Your task to perform on an android device: allow cookies in the chrome app Image 0: 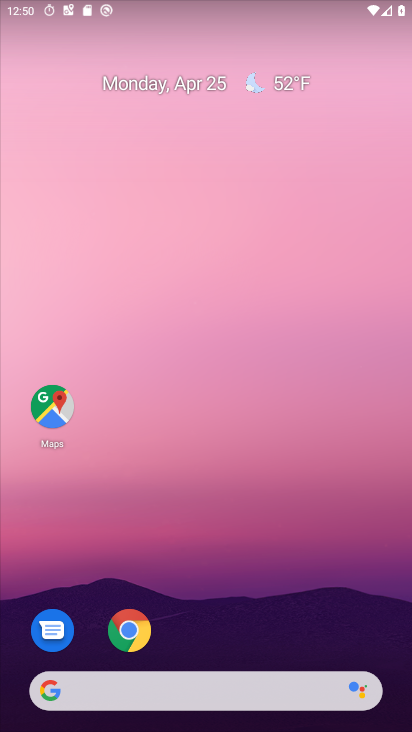
Step 0: drag from (291, 609) to (133, 322)
Your task to perform on an android device: allow cookies in the chrome app Image 1: 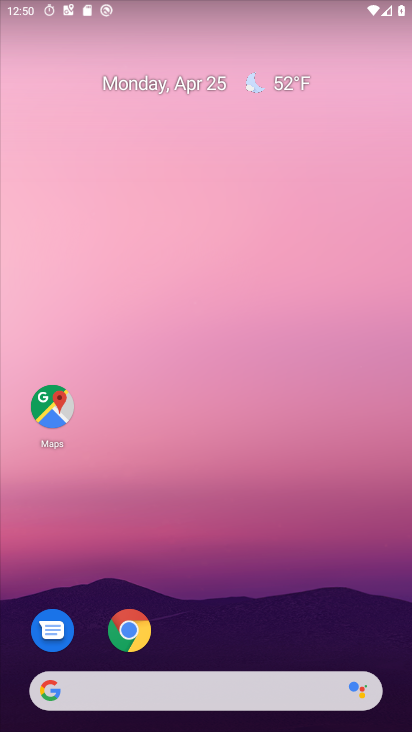
Step 1: click (124, 632)
Your task to perform on an android device: allow cookies in the chrome app Image 2: 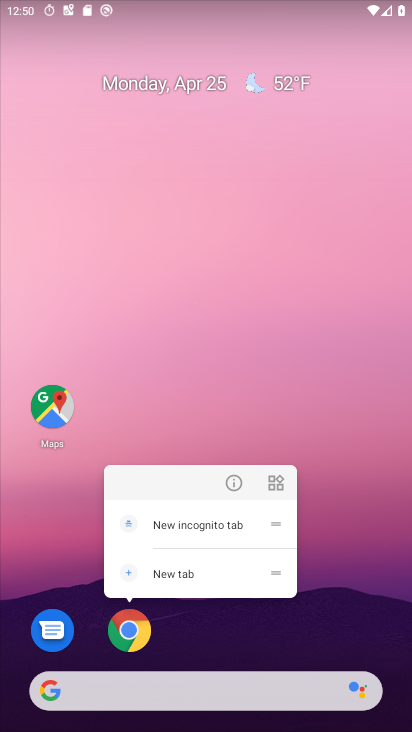
Step 2: click (227, 486)
Your task to perform on an android device: allow cookies in the chrome app Image 3: 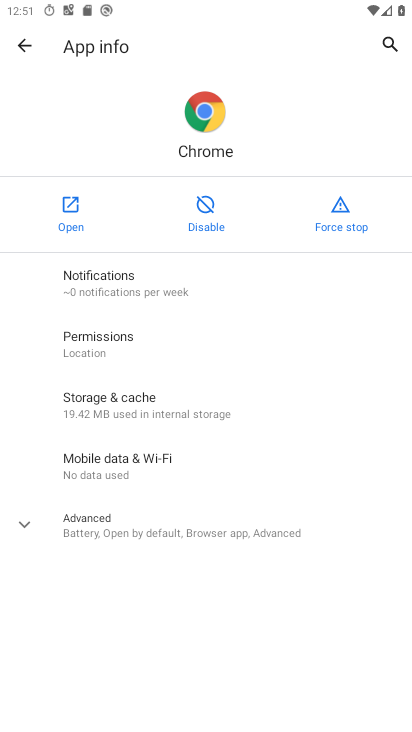
Step 3: click (58, 219)
Your task to perform on an android device: allow cookies in the chrome app Image 4: 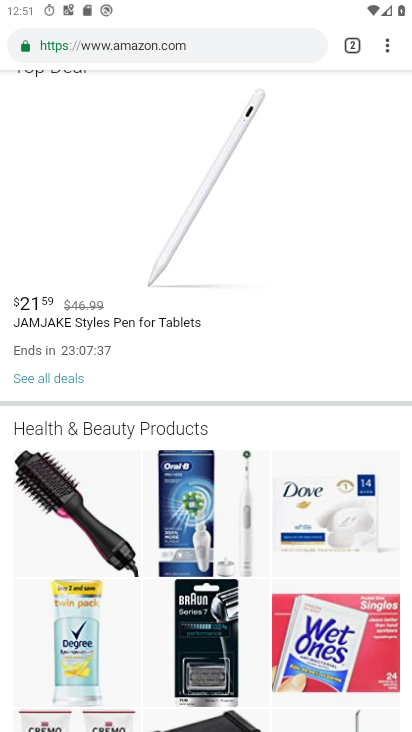
Step 4: click (388, 36)
Your task to perform on an android device: allow cookies in the chrome app Image 5: 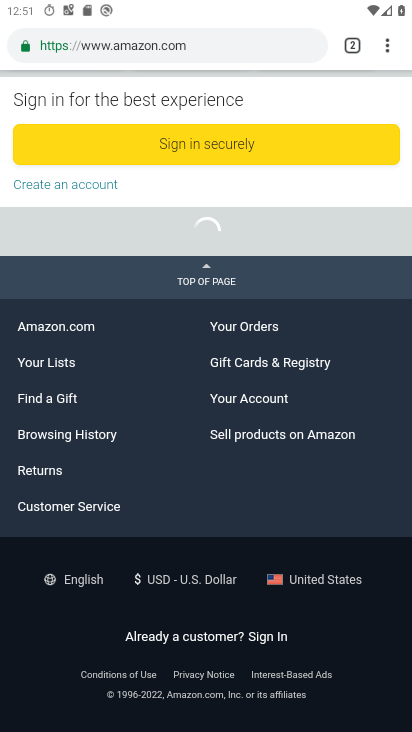
Step 5: drag from (392, 44) to (408, 141)
Your task to perform on an android device: allow cookies in the chrome app Image 6: 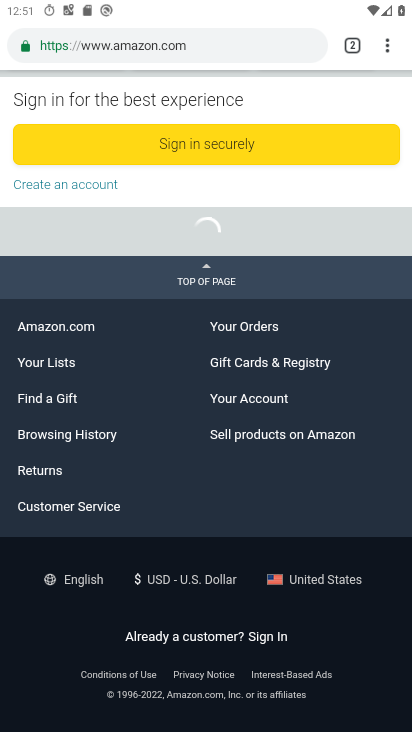
Step 6: drag from (392, 44) to (324, 606)
Your task to perform on an android device: allow cookies in the chrome app Image 7: 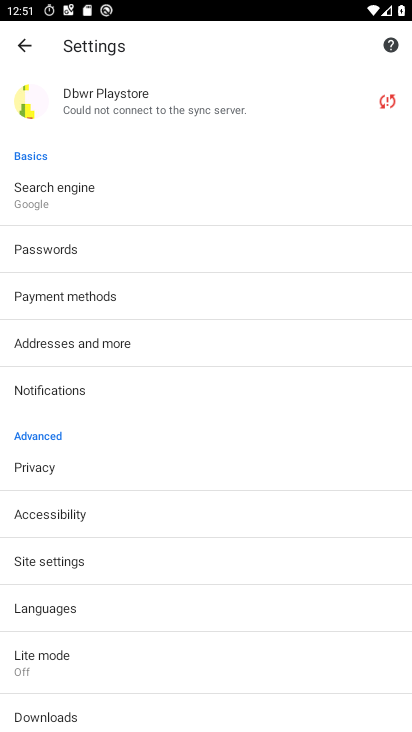
Step 7: click (191, 552)
Your task to perform on an android device: allow cookies in the chrome app Image 8: 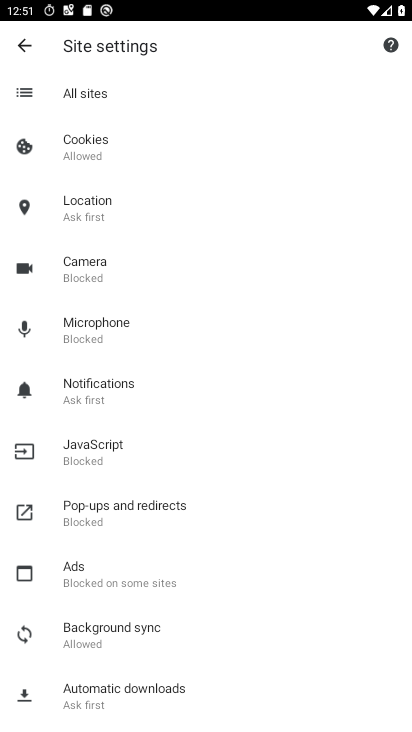
Step 8: click (119, 140)
Your task to perform on an android device: allow cookies in the chrome app Image 9: 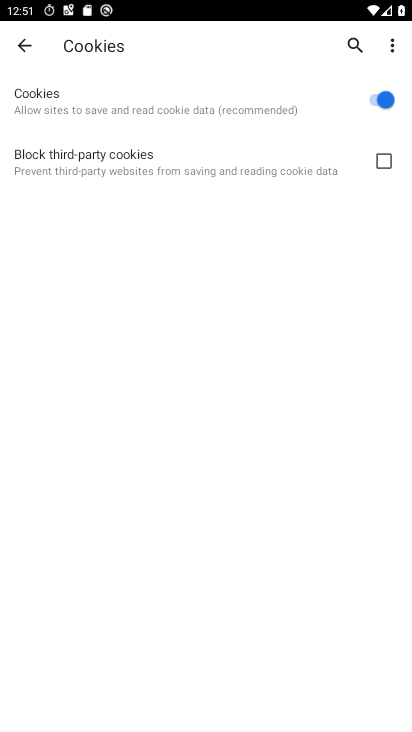
Step 9: task complete